Your task to perform on an android device: Clear the shopping cart on walmart.com. Search for "acer predator" on walmart.com, select the first entry, add it to the cart, then select checkout. Image 0: 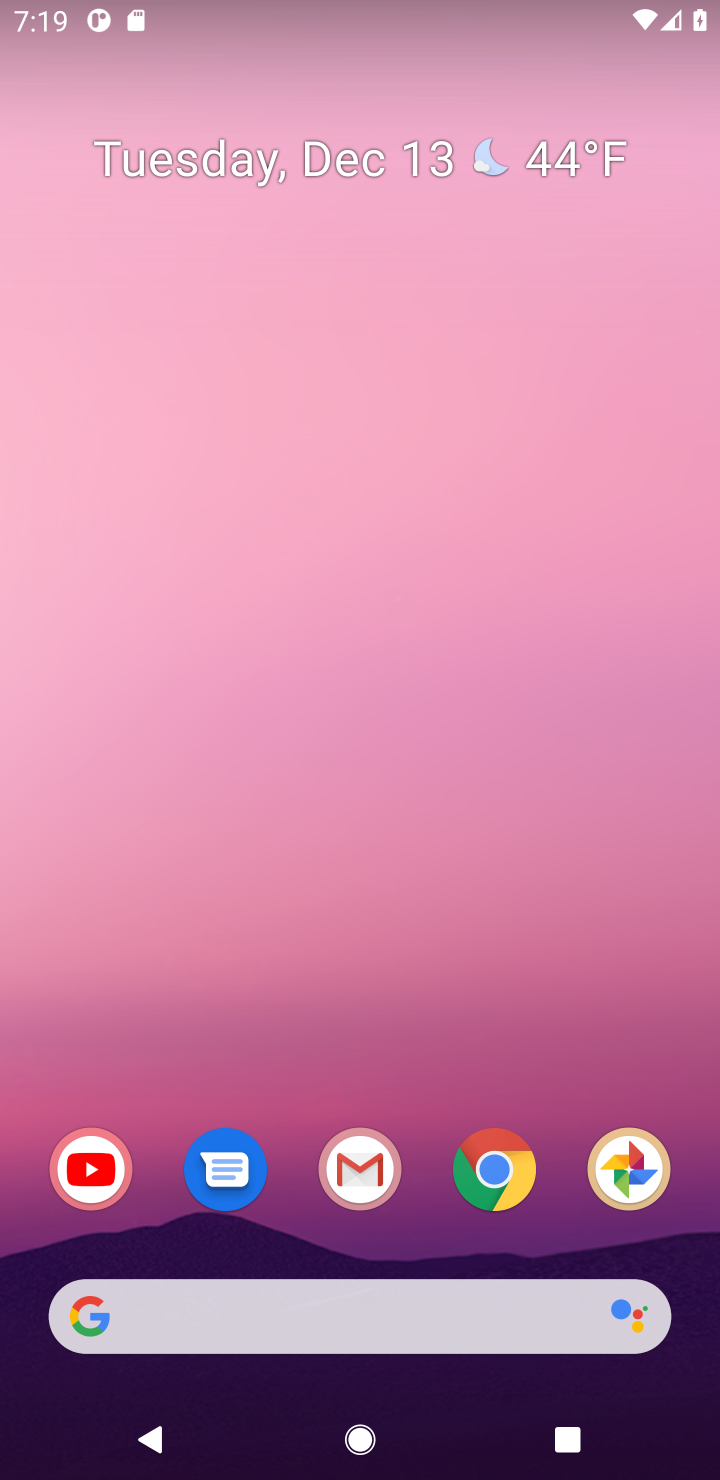
Step 0: click (521, 1159)
Your task to perform on an android device: Clear the shopping cart on walmart.com. Search for "acer predator" on walmart.com, select the first entry, add it to the cart, then select checkout. Image 1: 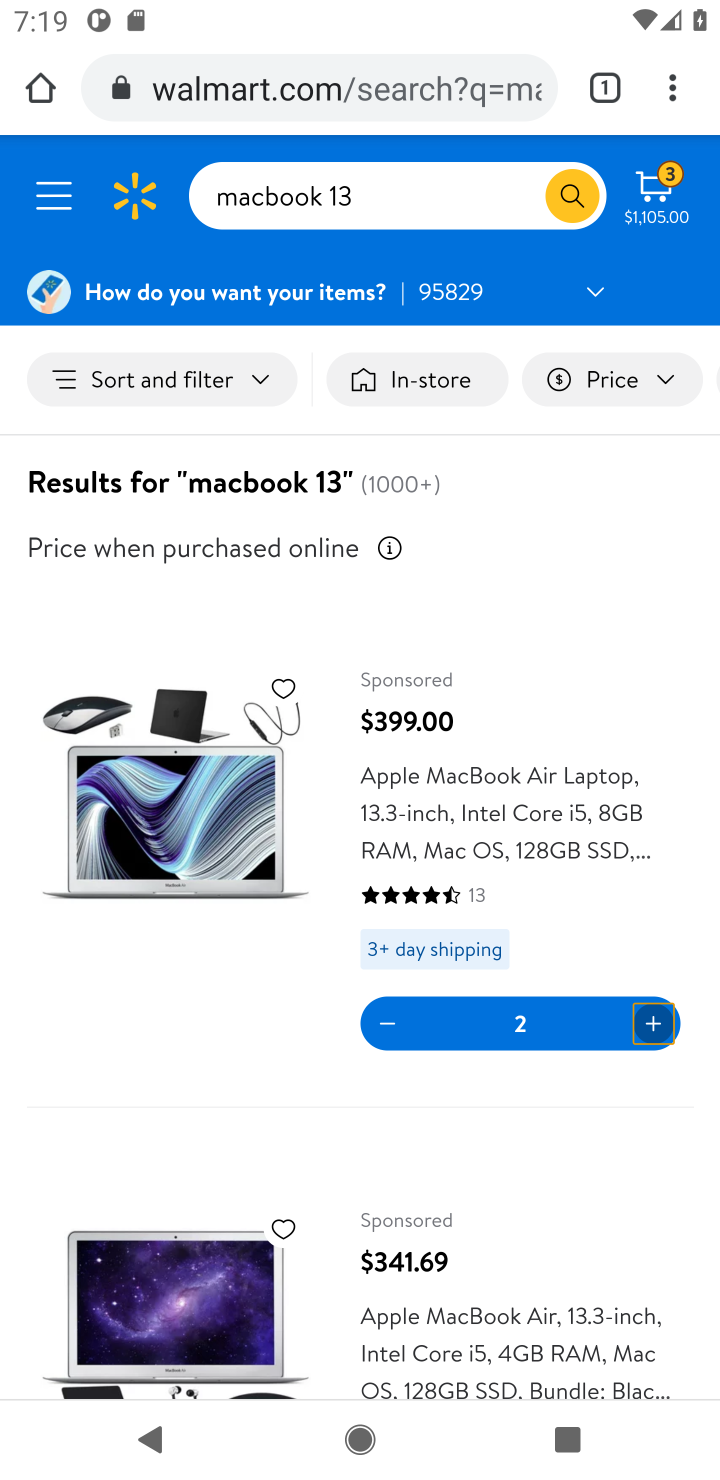
Step 1: click (463, 186)
Your task to perform on an android device: Clear the shopping cart on walmart.com. Search for "acer predator" on walmart.com, select the first entry, add it to the cart, then select checkout. Image 2: 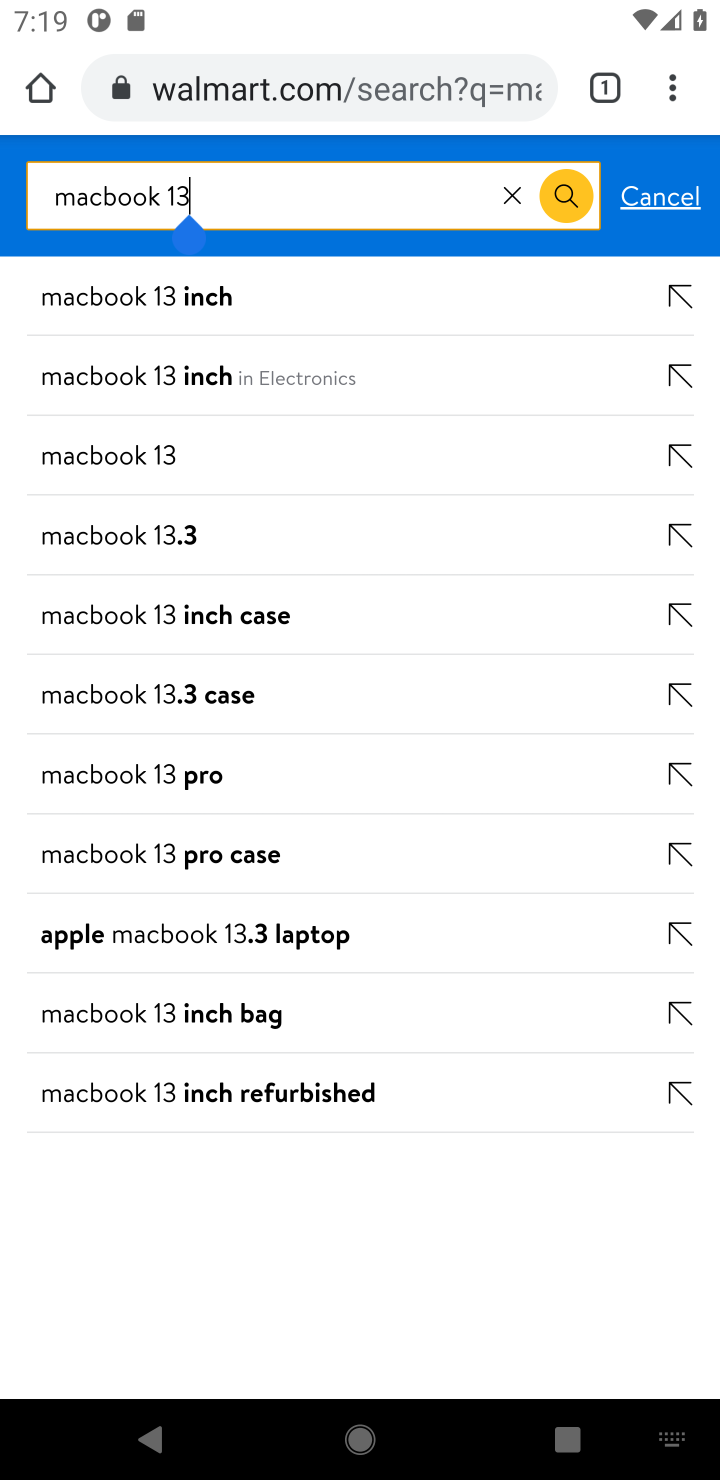
Step 2: click (499, 200)
Your task to perform on an android device: Clear the shopping cart on walmart.com. Search for "acer predator" on walmart.com, select the first entry, add it to the cart, then select checkout. Image 3: 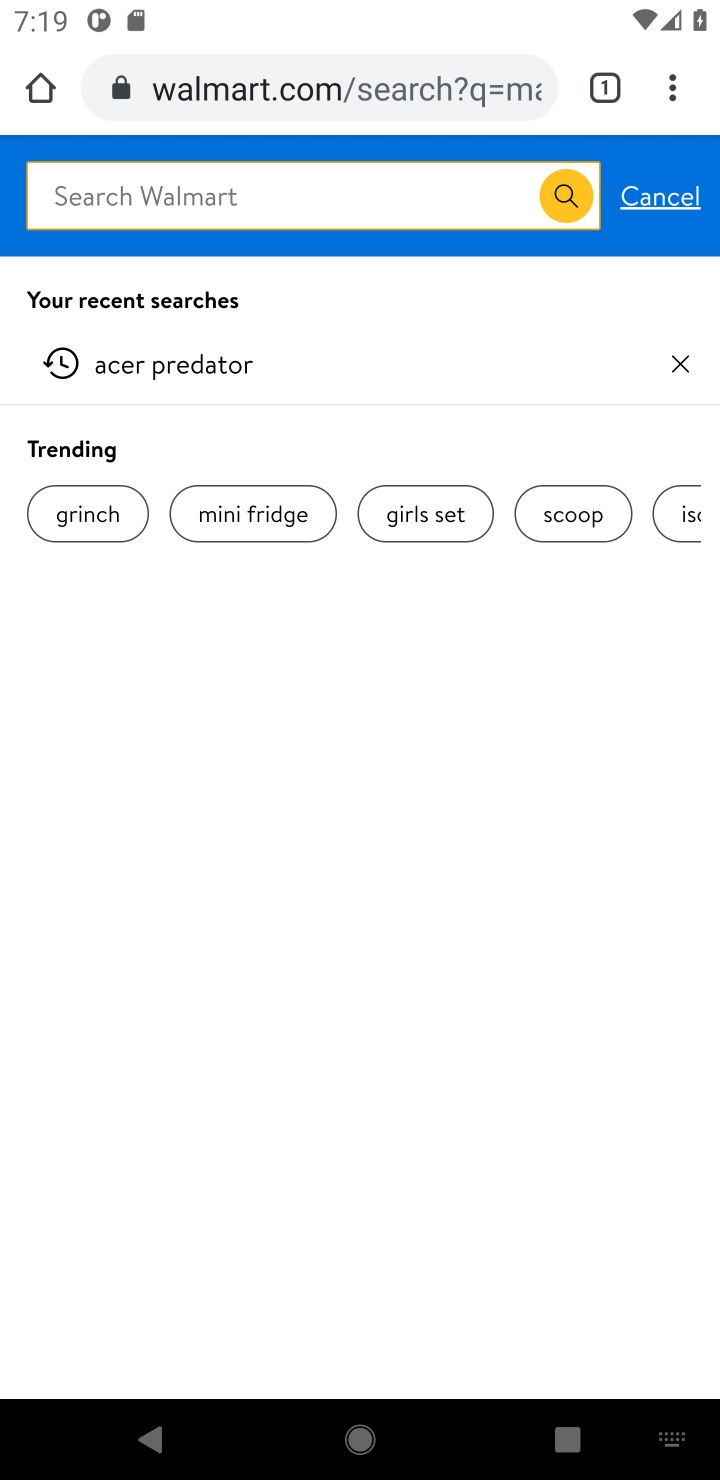
Step 3: type "acer predator"
Your task to perform on an android device: Clear the shopping cart on walmart.com. Search for "acer predator" on walmart.com, select the first entry, add it to the cart, then select checkout. Image 4: 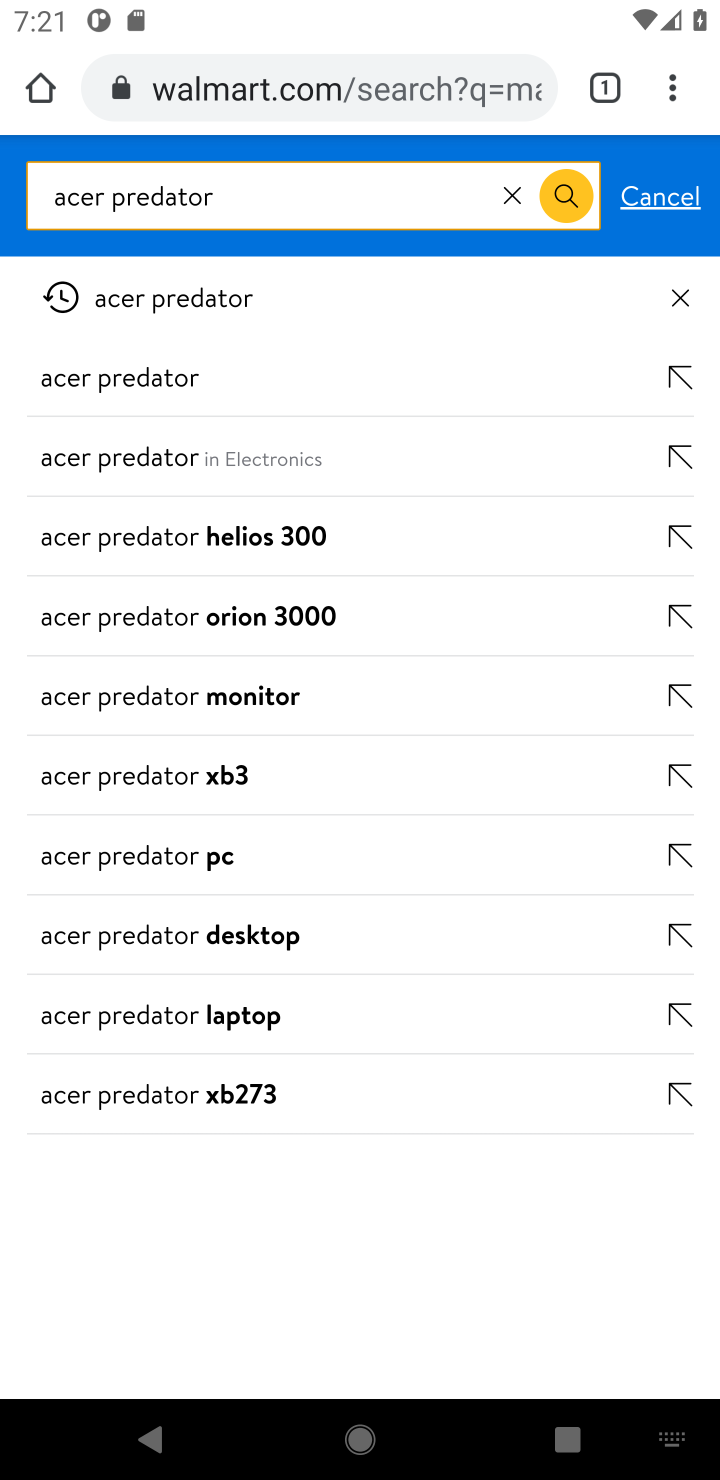
Step 4: click (258, 314)
Your task to perform on an android device: Clear the shopping cart on walmart.com. Search for "acer predator" on walmart.com, select the first entry, add it to the cart, then select checkout. Image 5: 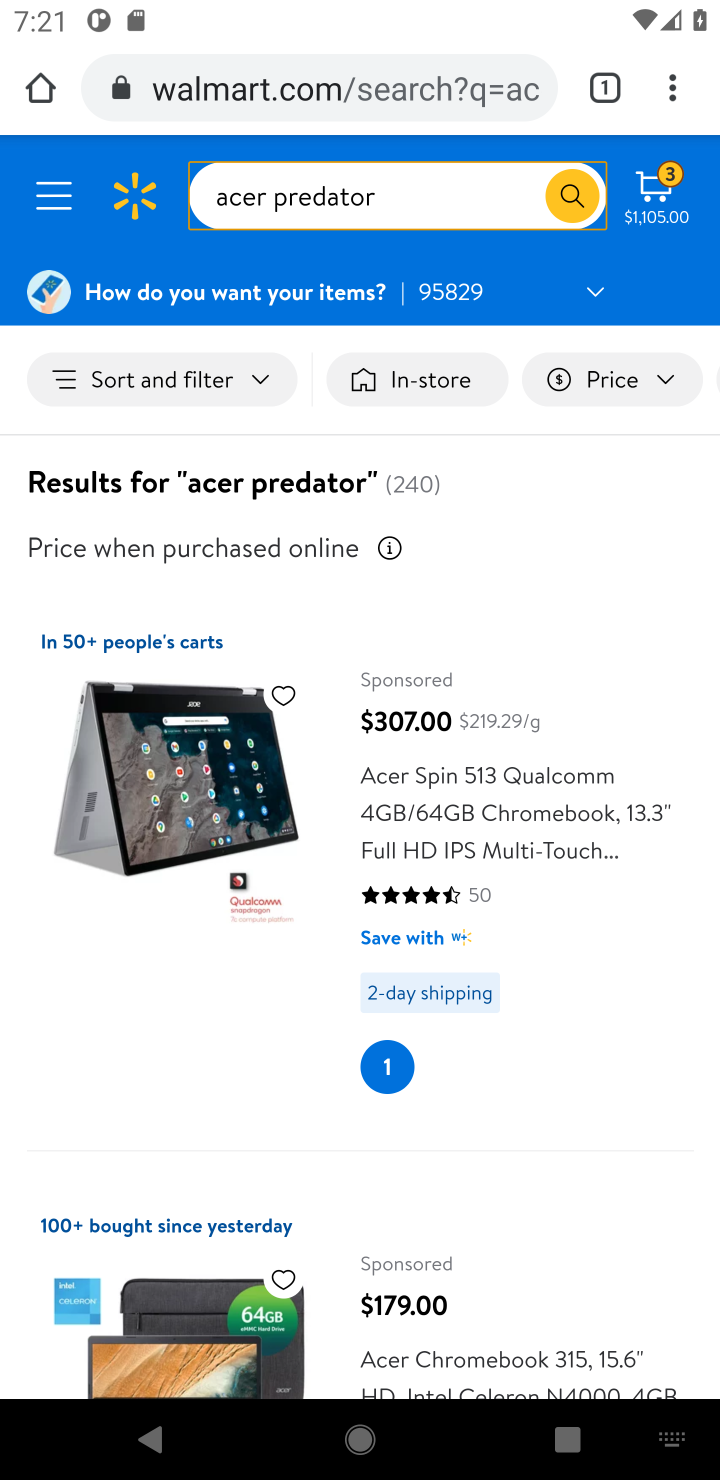
Step 5: task complete